Your task to perform on an android device: clear history in the chrome app Image 0: 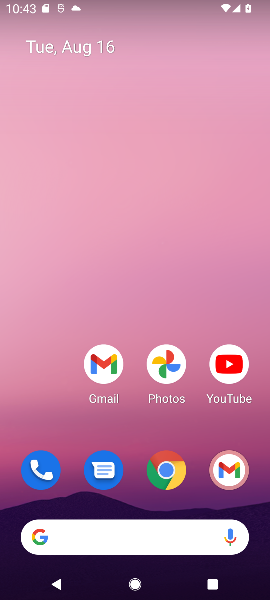
Step 0: click (169, 466)
Your task to perform on an android device: clear history in the chrome app Image 1: 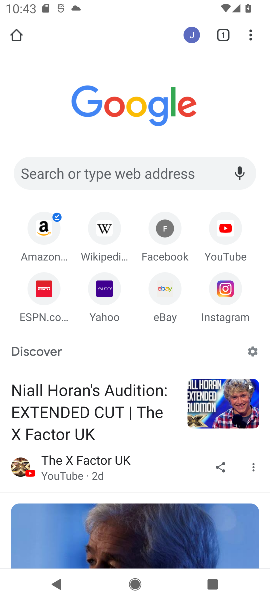
Step 1: click (251, 37)
Your task to perform on an android device: clear history in the chrome app Image 2: 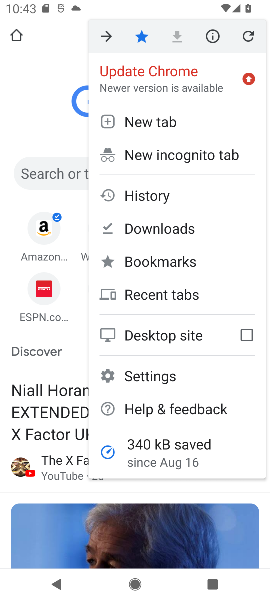
Step 2: click (154, 195)
Your task to perform on an android device: clear history in the chrome app Image 3: 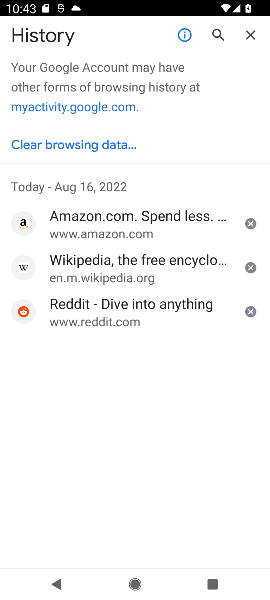
Step 3: click (50, 144)
Your task to perform on an android device: clear history in the chrome app Image 4: 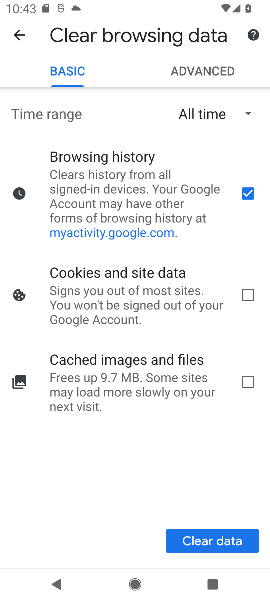
Step 4: click (210, 543)
Your task to perform on an android device: clear history in the chrome app Image 5: 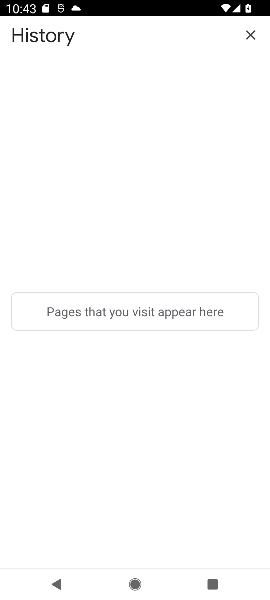
Step 5: task complete